Your task to perform on an android device: delete browsing data in the chrome app Image 0: 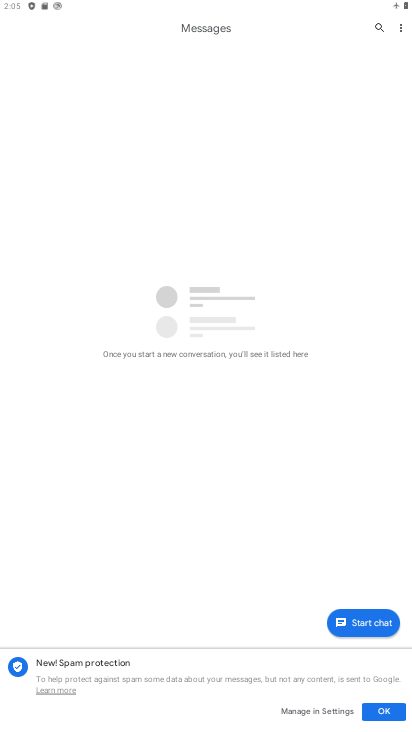
Step 0: press home button
Your task to perform on an android device: delete browsing data in the chrome app Image 1: 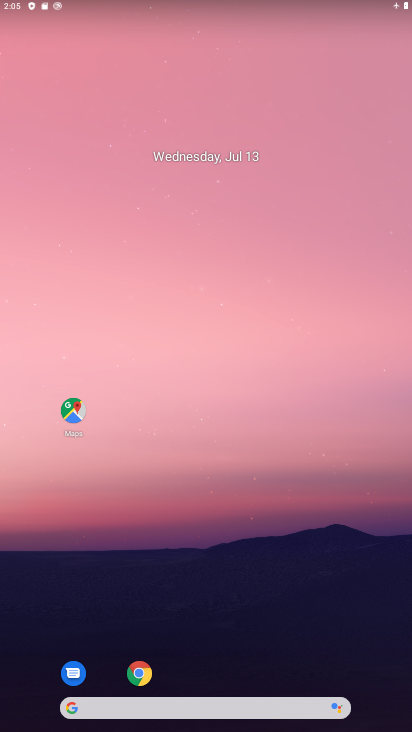
Step 1: click (141, 673)
Your task to perform on an android device: delete browsing data in the chrome app Image 2: 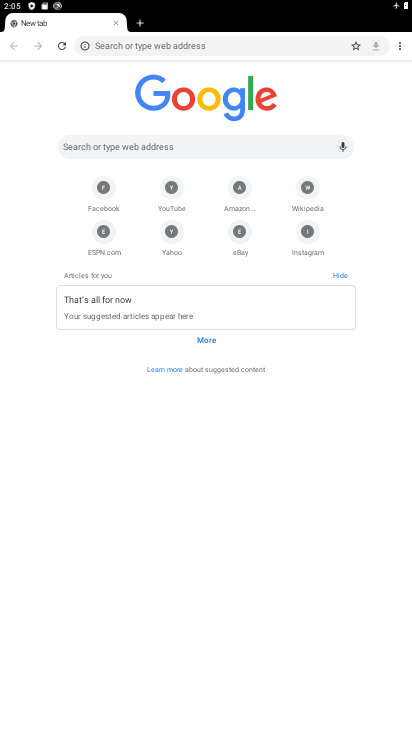
Step 2: click (399, 44)
Your task to perform on an android device: delete browsing data in the chrome app Image 3: 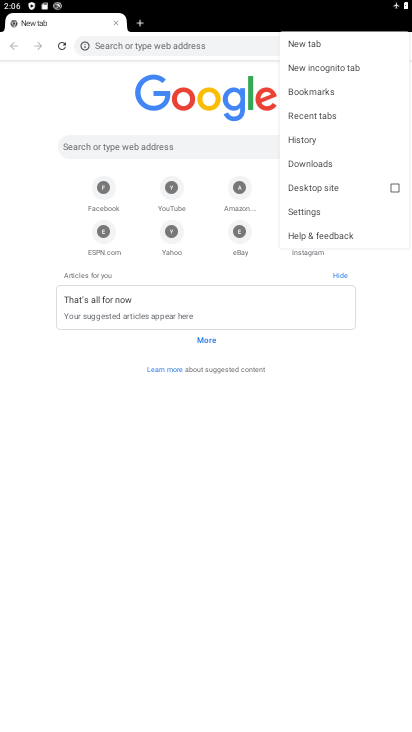
Step 3: click (304, 209)
Your task to perform on an android device: delete browsing data in the chrome app Image 4: 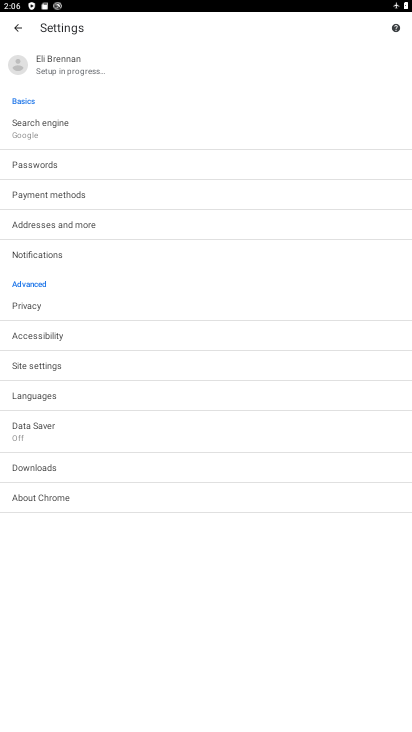
Step 4: click (29, 308)
Your task to perform on an android device: delete browsing data in the chrome app Image 5: 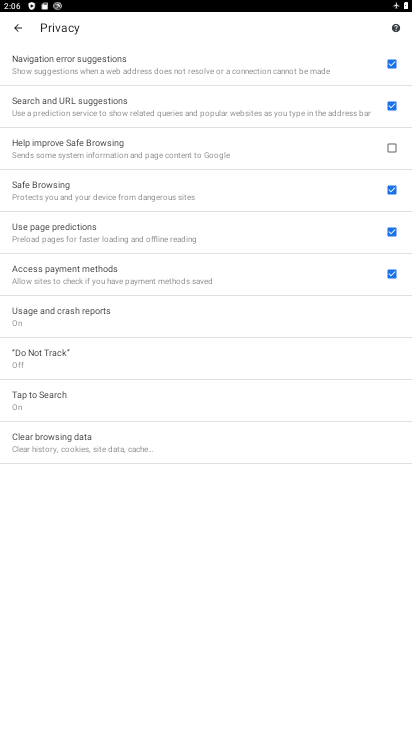
Step 5: click (107, 445)
Your task to perform on an android device: delete browsing data in the chrome app Image 6: 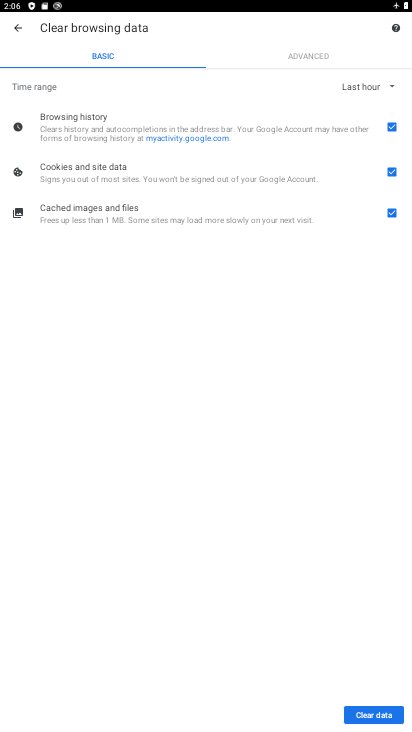
Step 6: click (377, 710)
Your task to perform on an android device: delete browsing data in the chrome app Image 7: 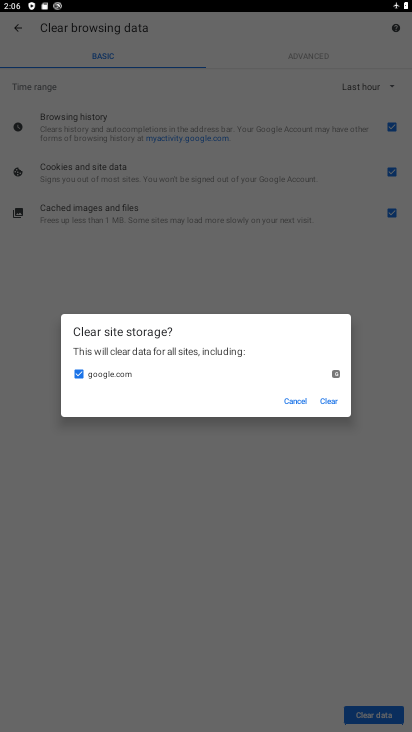
Step 7: click (326, 397)
Your task to perform on an android device: delete browsing data in the chrome app Image 8: 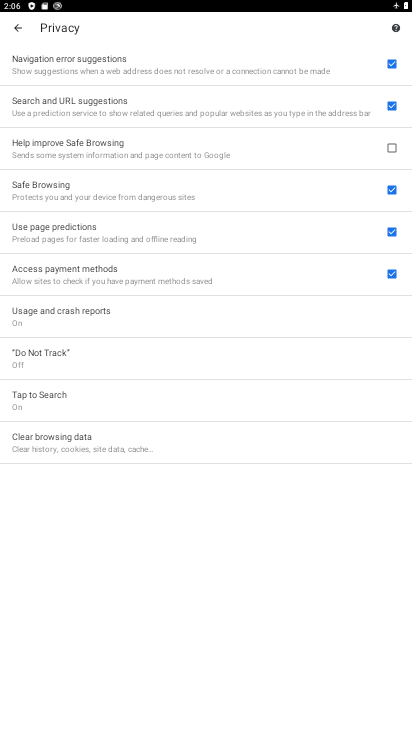
Step 8: task complete